Your task to perform on an android device: turn on wifi Image 0: 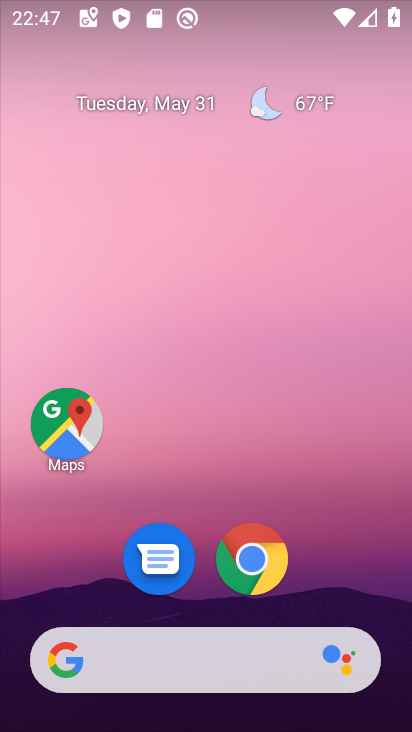
Step 0: drag from (306, 568) to (281, 128)
Your task to perform on an android device: turn on wifi Image 1: 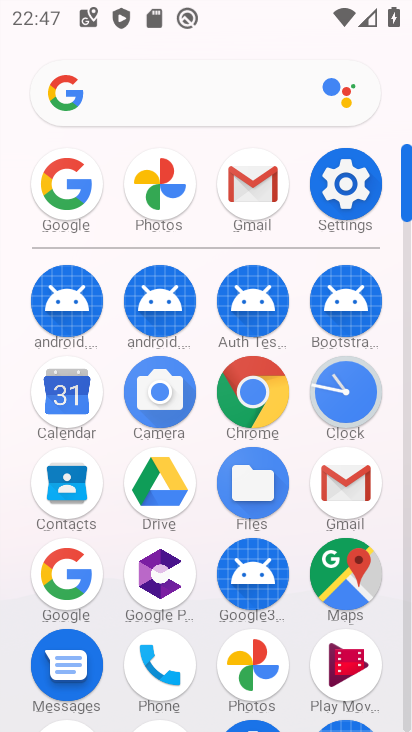
Step 1: click (348, 186)
Your task to perform on an android device: turn on wifi Image 2: 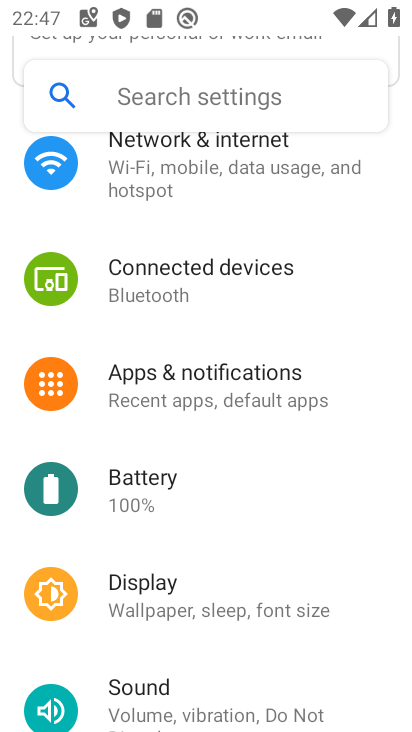
Step 2: click (199, 166)
Your task to perform on an android device: turn on wifi Image 3: 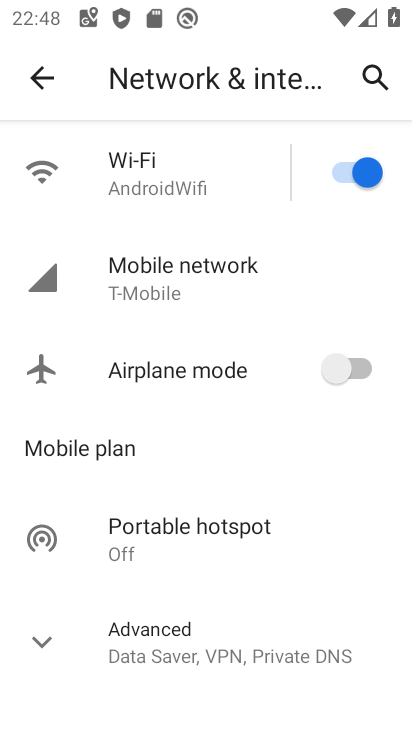
Step 3: task complete